Your task to perform on an android device: Open sound settings Image 0: 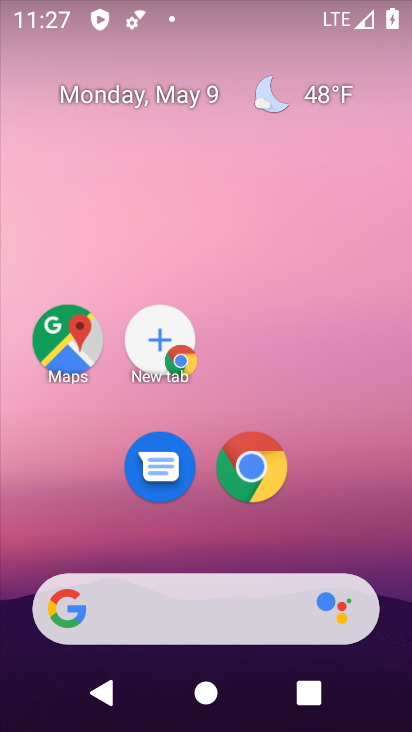
Step 0: click (182, 99)
Your task to perform on an android device: Open sound settings Image 1: 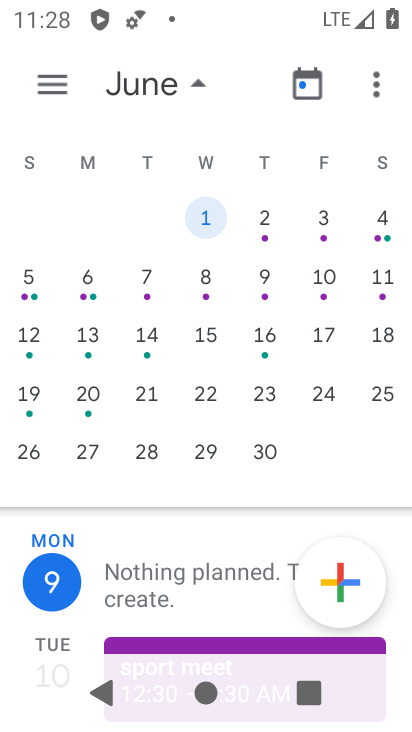
Step 1: press home button
Your task to perform on an android device: Open sound settings Image 2: 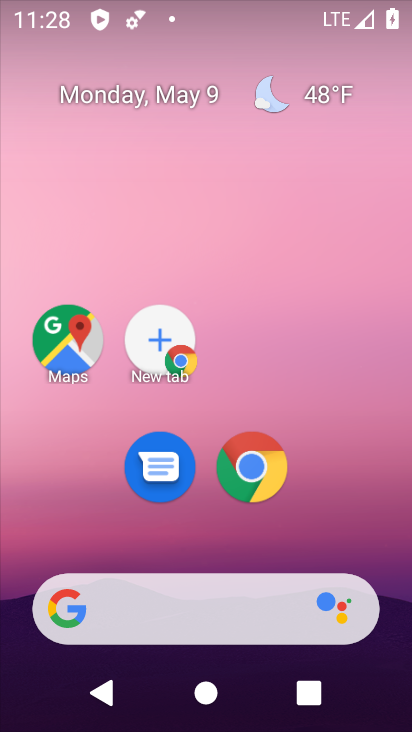
Step 2: drag from (228, 269) to (112, 14)
Your task to perform on an android device: Open sound settings Image 3: 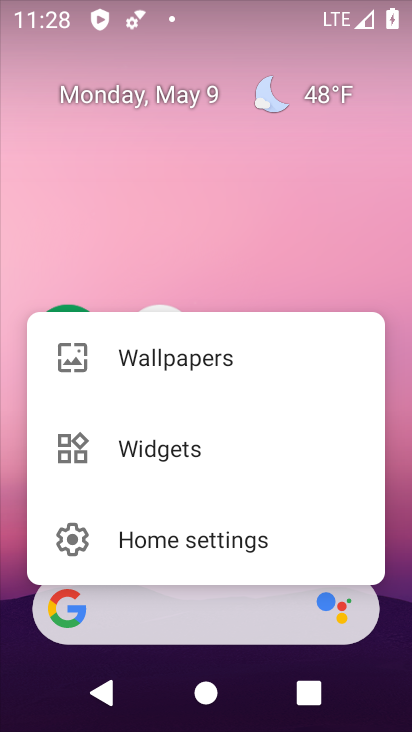
Step 3: click (264, 214)
Your task to perform on an android device: Open sound settings Image 4: 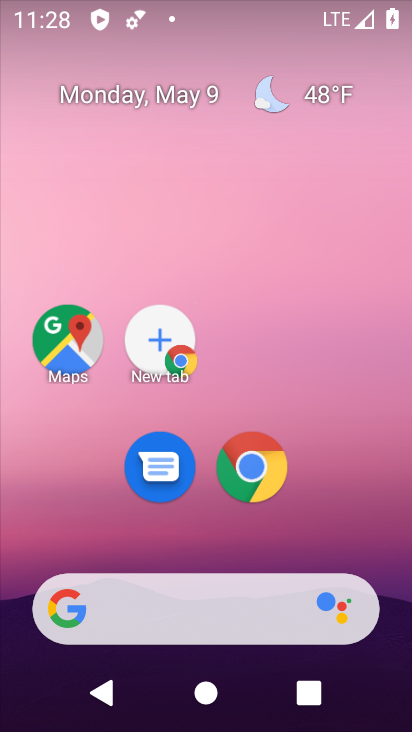
Step 4: click (266, 223)
Your task to perform on an android device: Open sound settings Image 5: 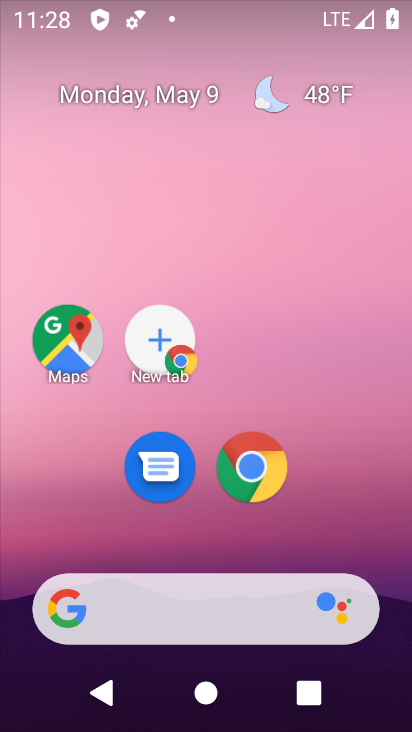
Step 5: click (103, 0)
Your task to perform on an android device: Open sound settings Image 6: 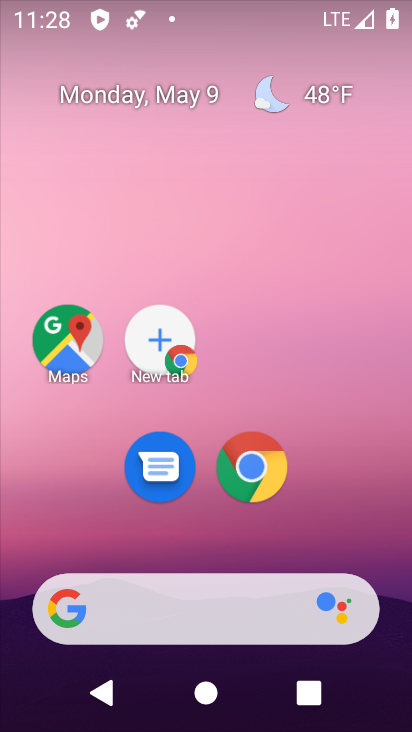
Step 6: drag from (341, 450) to (187, 22)
Your task to perform on an android device: Open sound settings Image 7: 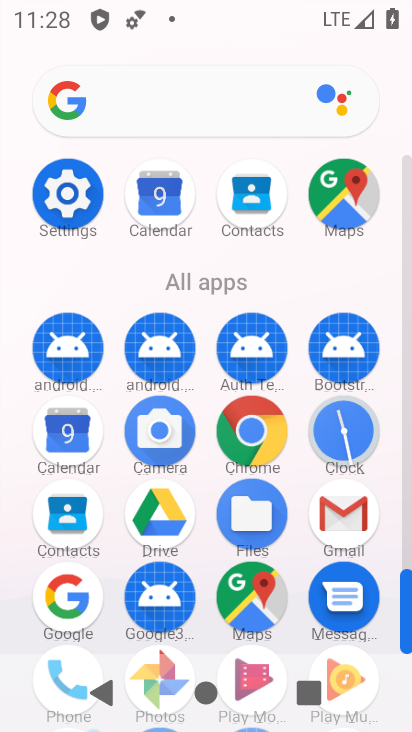
Step 7: drag from (316, 485) to (144, 157)
Your task to perform on an android device: Open sound settings Image 8: 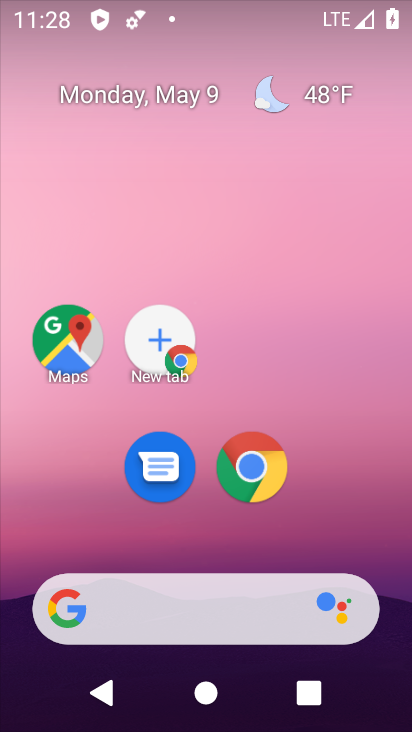
Step 8: click (95, 6)
Your task to perform on an android device: Open sound settings Image 9: 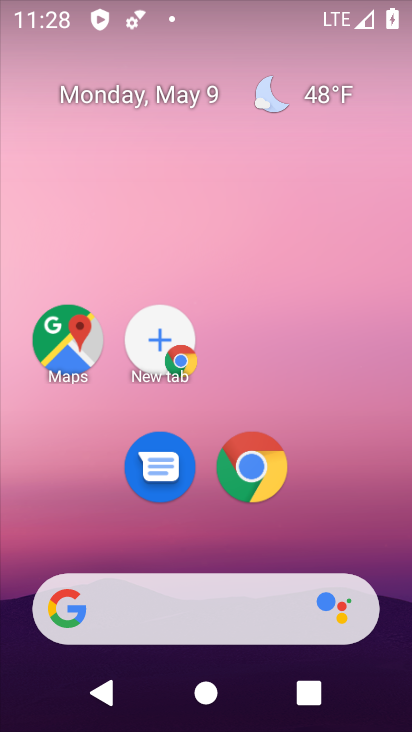
Step 9: drag from (319, 455) to (155, 166)
Your task to perform on an android device: Open sound settings Image 10: 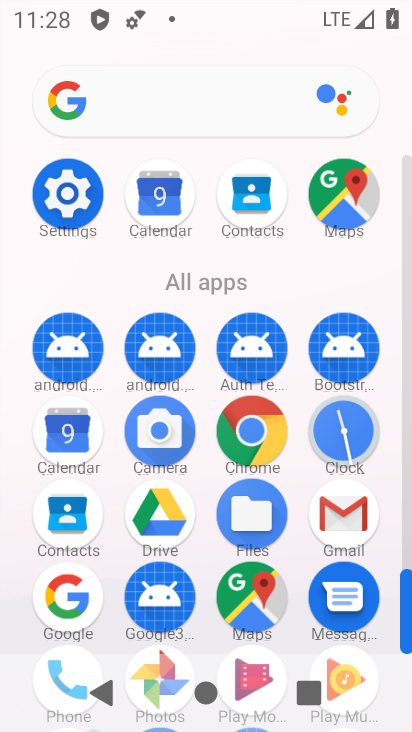
Step 10: click (66, 199)
Your task to perform on an android device: Open sound settings Image 11: 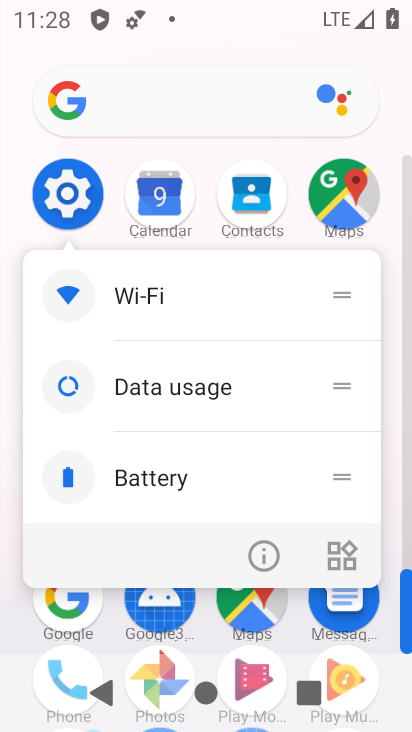
Step 11: click (66, 199)
Your task to perform on an android device: Open sound settings Image 12: 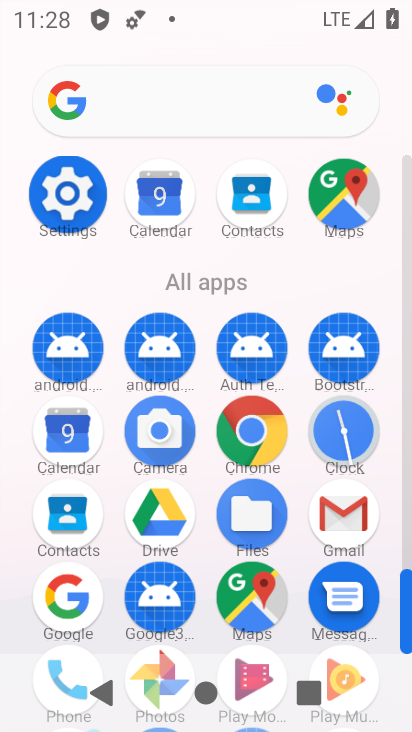
Step 12: click (65, 188)
Your task to perform on an android device: Open sound settings Image 13: 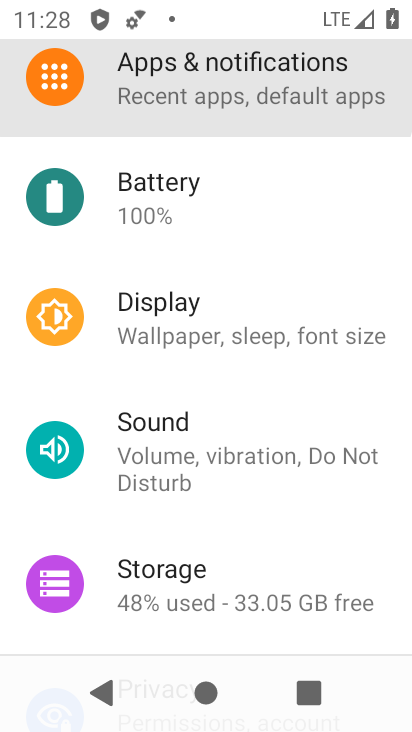
Step 13: click (65, 193)
Your task to perform on an android device: Open sound settings Image 14: 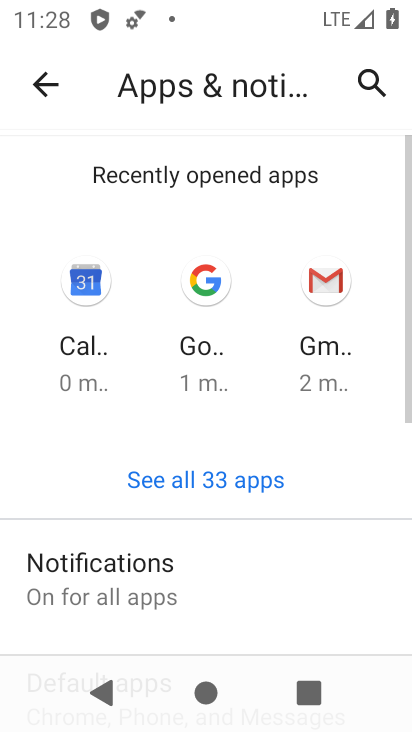
Step 14: click (51, 86)
Your task to perform on an android device: Open sound settings Image 15: 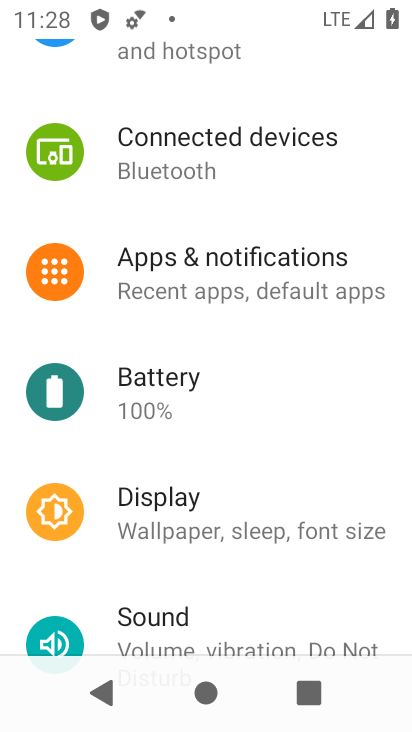
Step 15: click (172, 627)
Your task to perform on an android device: Open sound settings Image 16: 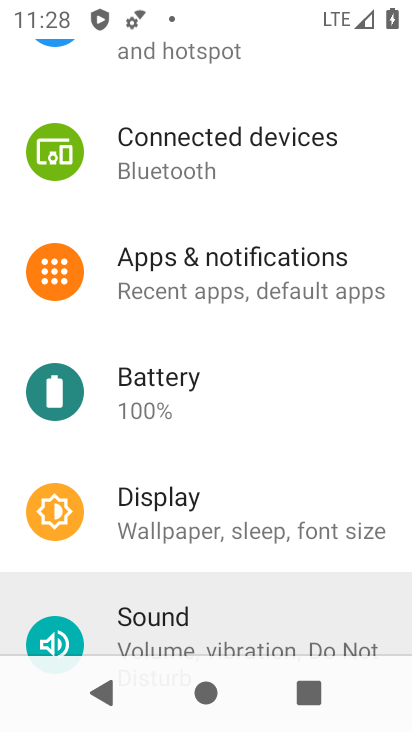
Step 16: click (171, 628)
Your task to perform on an android device: Open sound settings Image 17: 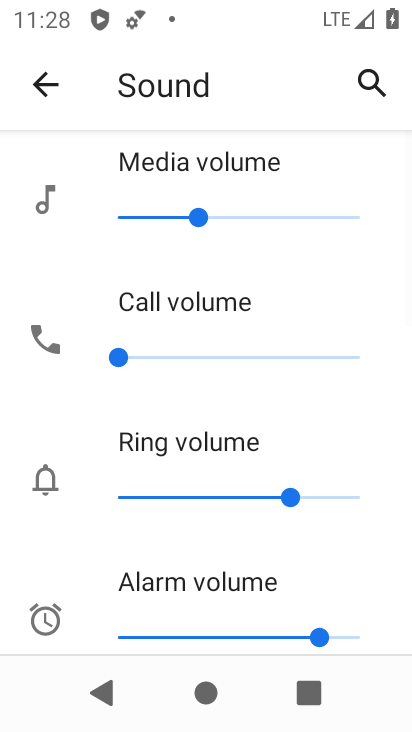
Step 17: task complete